Your task to perform on an android device: toggle data saver in the chrome app Image 0: 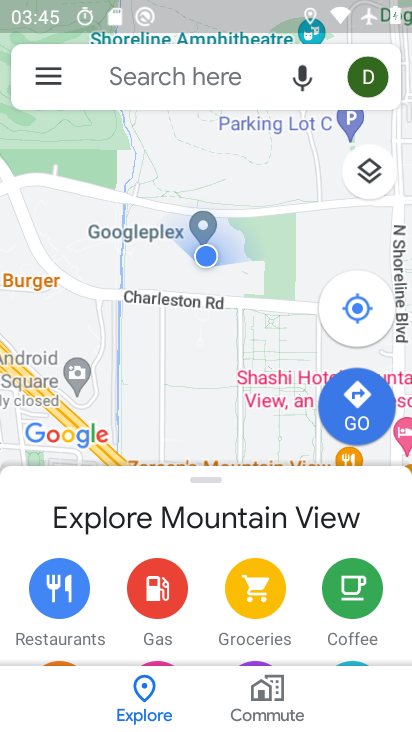
Step 0: press home button
Your task to perform on an android device: toggle data saver in the chrome app Image 1: 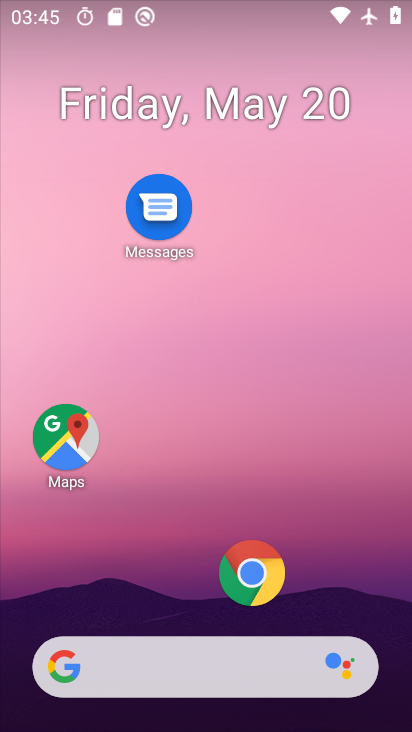
Step 1: click (252, 578)
Your task to perform on an android device: toggle data saver in the chrome app Image 2: 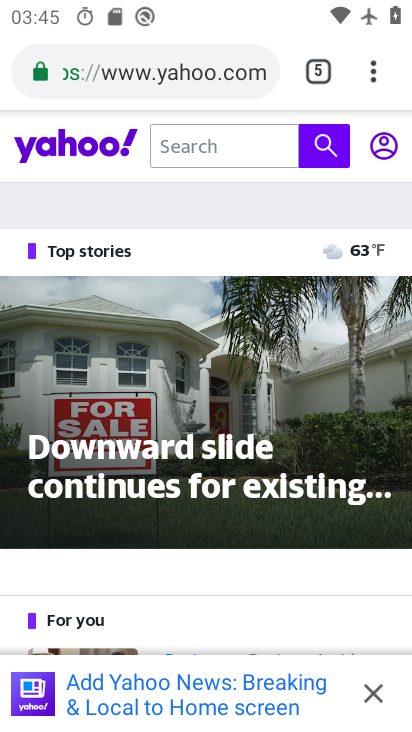
Step 2: click (378, 66)
Your task to perform on an android device: toggle data saver in the chrome app Image 3: 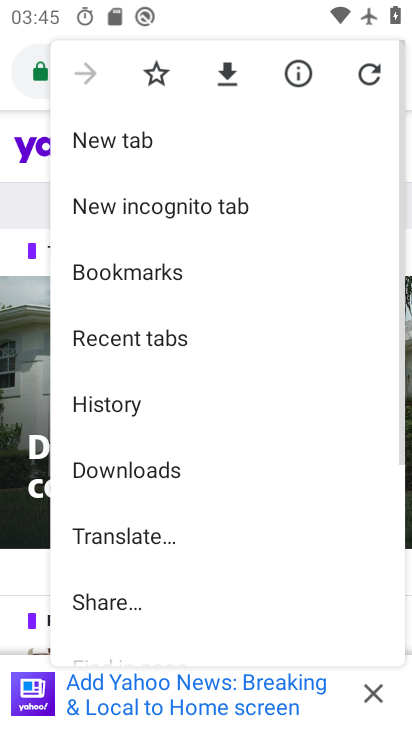
Step 3: drag from (245, 504) to (244, 276)
Your task to perform on an android device: toggle data saver in the chrome app Image 4: 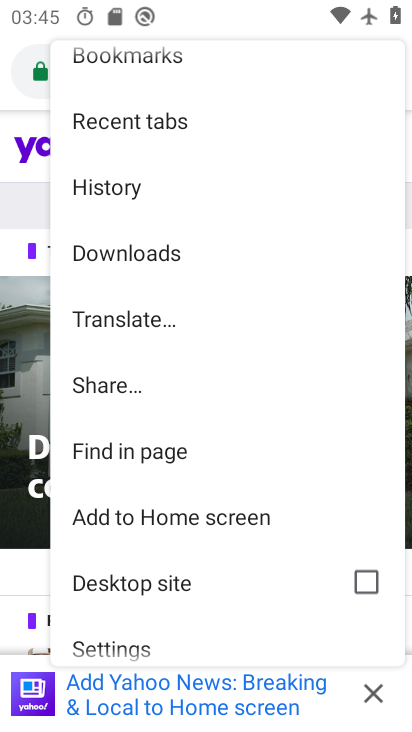
Step 4: drag from (164, 589) to (216, 320)
Your task to perform on an android device: toggle data saver in the chrome app Image 5: 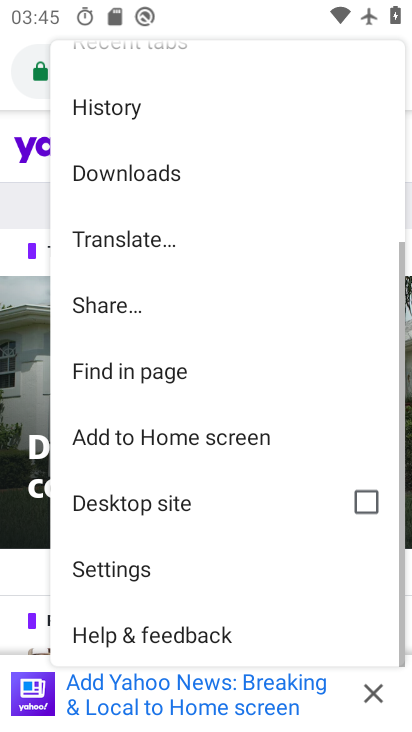
Step 5: click (141, 563)
Your task to perform on an android device: toggle data saver in the chrome app Image 6: 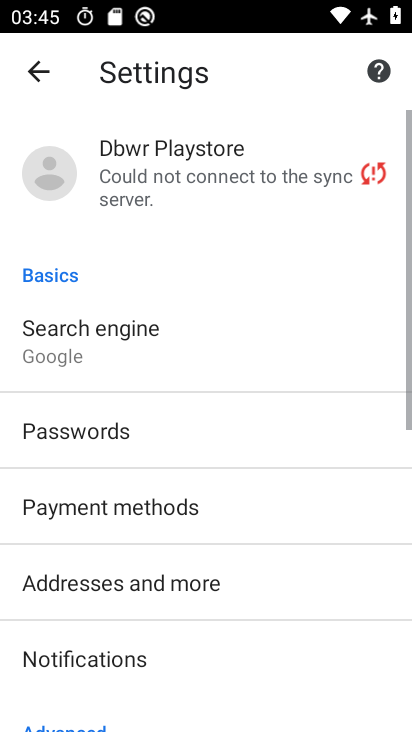
Step 6: drag from (152, 650) to (199, 358)
Your task to perform on an android device: toggle data saver in the chrome app Image 7: 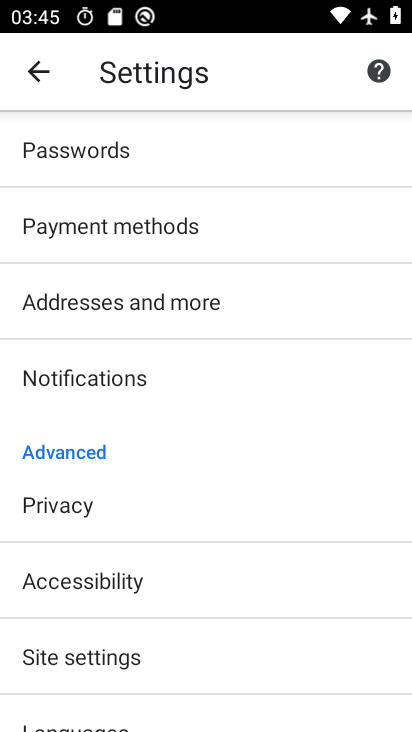
Step 7: drag from (172, 535) to (192, 274)
Your task to perform on an android device: toggle data saver in the chrome app Image 8: 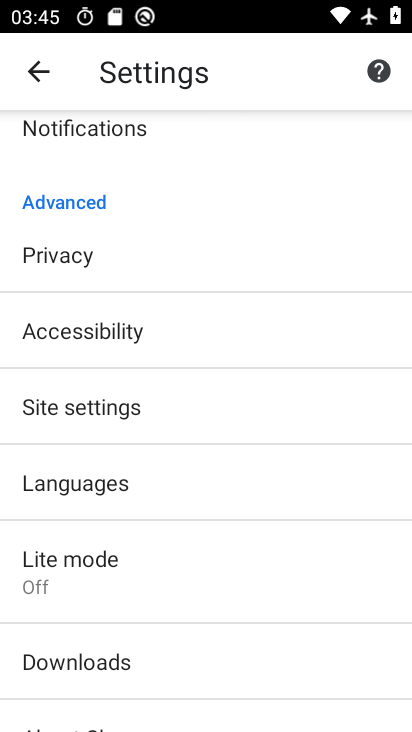
Step 8: click (154, 570)
Your task to perform on an android device: toggle data saver in the chrome app Image 9: 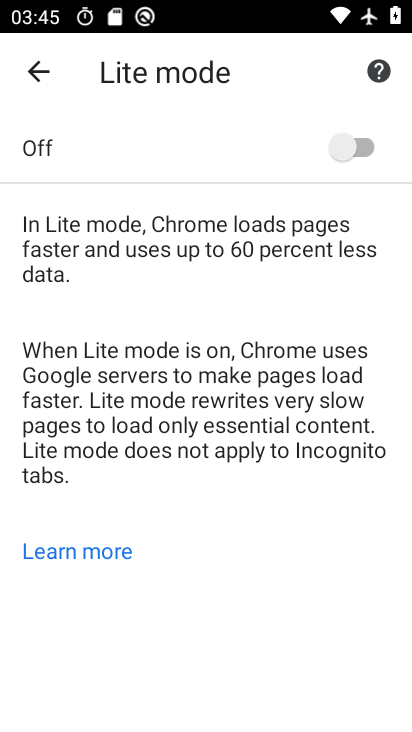
Step 9: click (364, 140)
Your task to perform on an android device: toggle data saver in the chrome app Image 10: 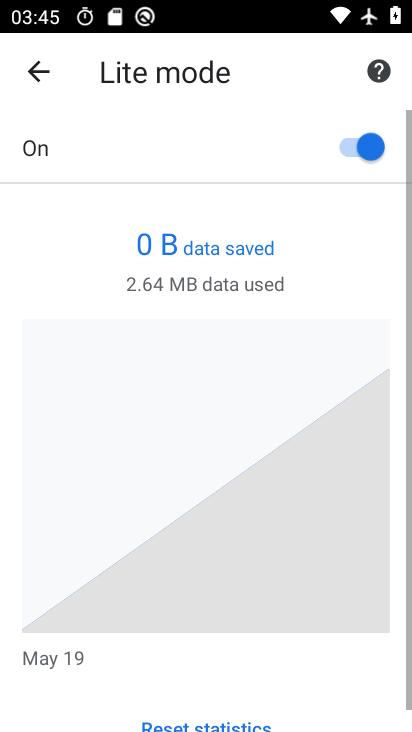
Step 10: task complete